Your task to perform on an android device: open a new tab in the chrome app Image 0: 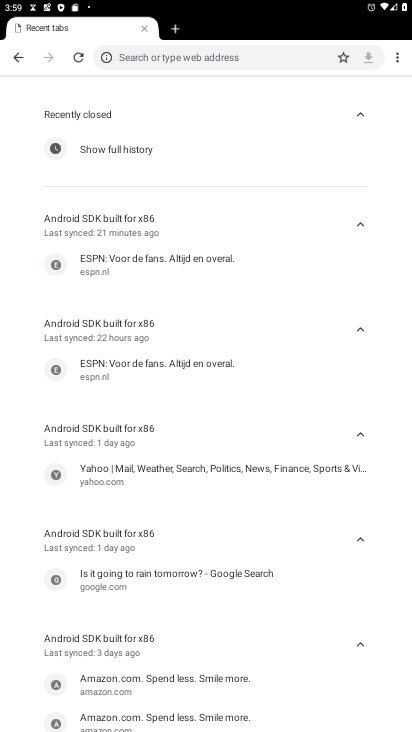
Step 0: press home button
Your task to perform on an android device: open a new tab in the chrome app Image 1: 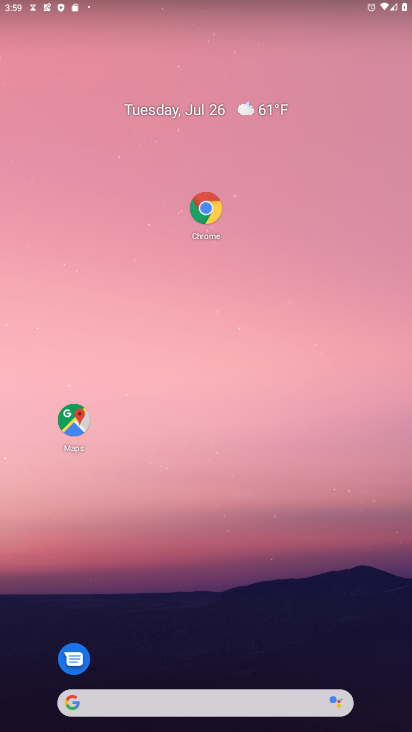
Step 1: click (207, 214)
Your task to perform on an android device: open a new tab in the chrome app Image 2: 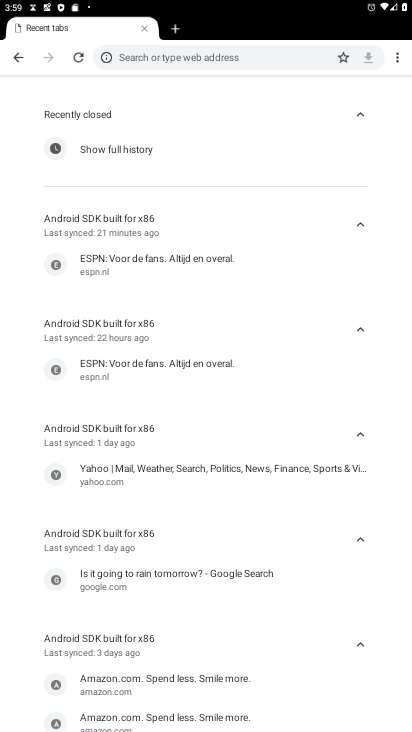
Step 2: click (400, 54)
Your task to perform on an android device: open a new tab in the chrome app Image 3: 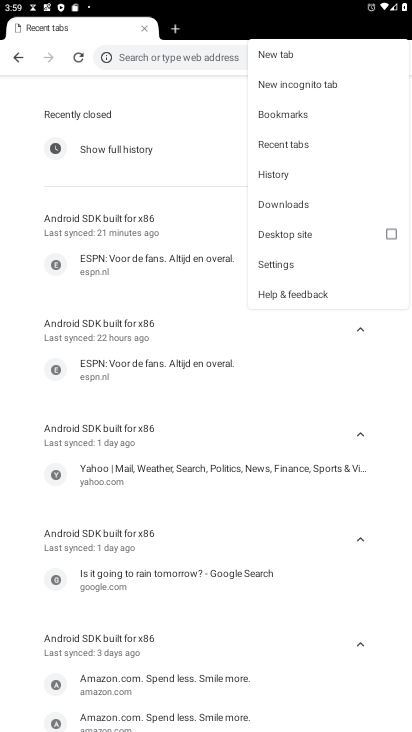
Step 3: click (282, 53)
Your task to perform on an android device: open a new tab in the chrome app Image 4: 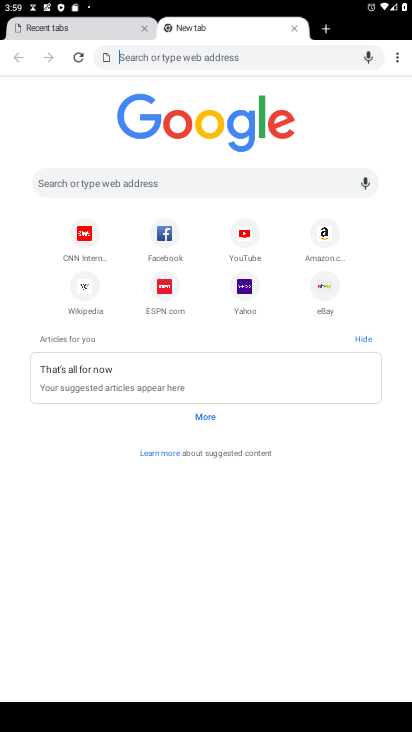
Step 4: task complete